Your task to perform on an android device: Show me the alarms in the clock app Image 0: 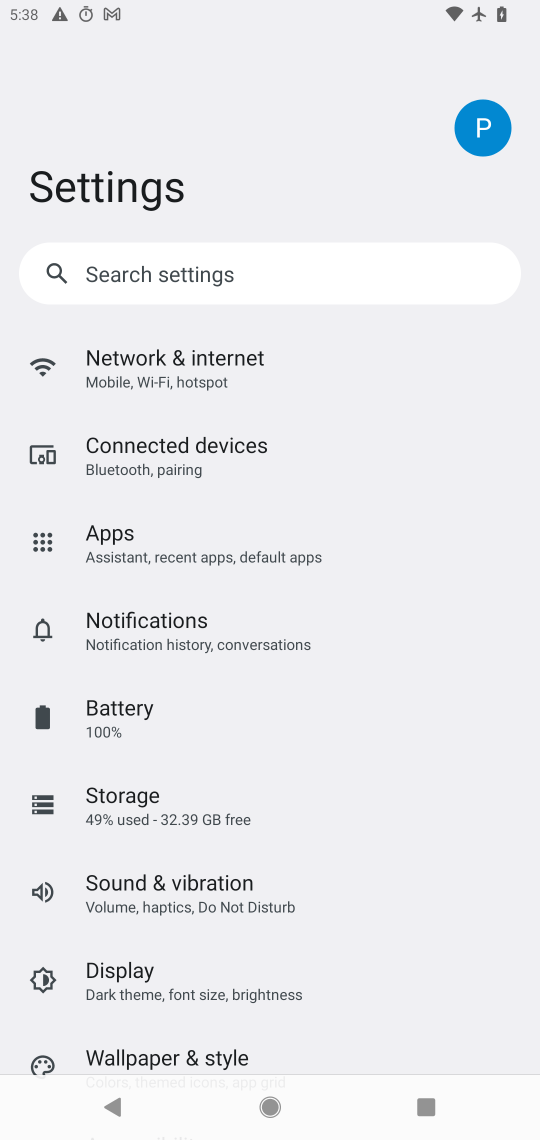
Step 0: press home button
Your task to perform on an android device: Show me the alarms in the clock app Image 1: 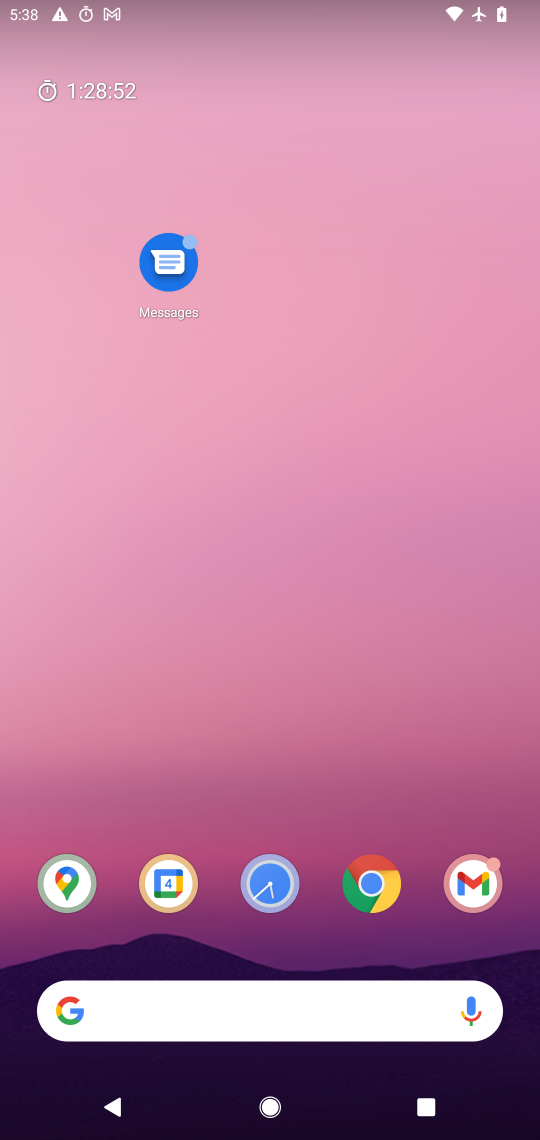
Step 1: drag from (318, 969) to (294, 31)
Your task to perform on an android device: Show me the alarms in the clock app Image 2: 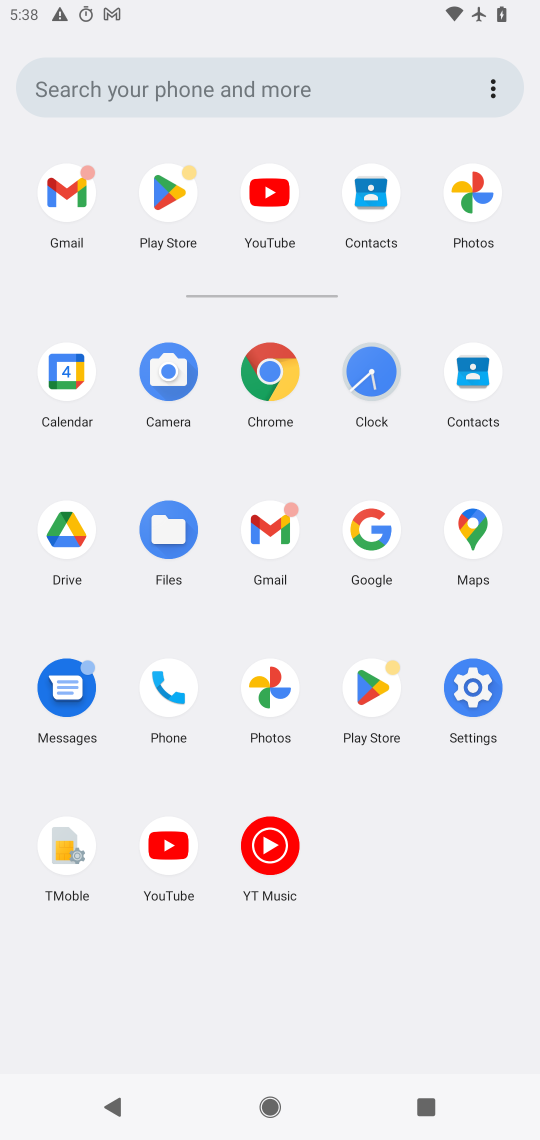
Step 2: click (371, 373)
Your task to perform on an android device: Show me the alarms in the clock app Image 3: 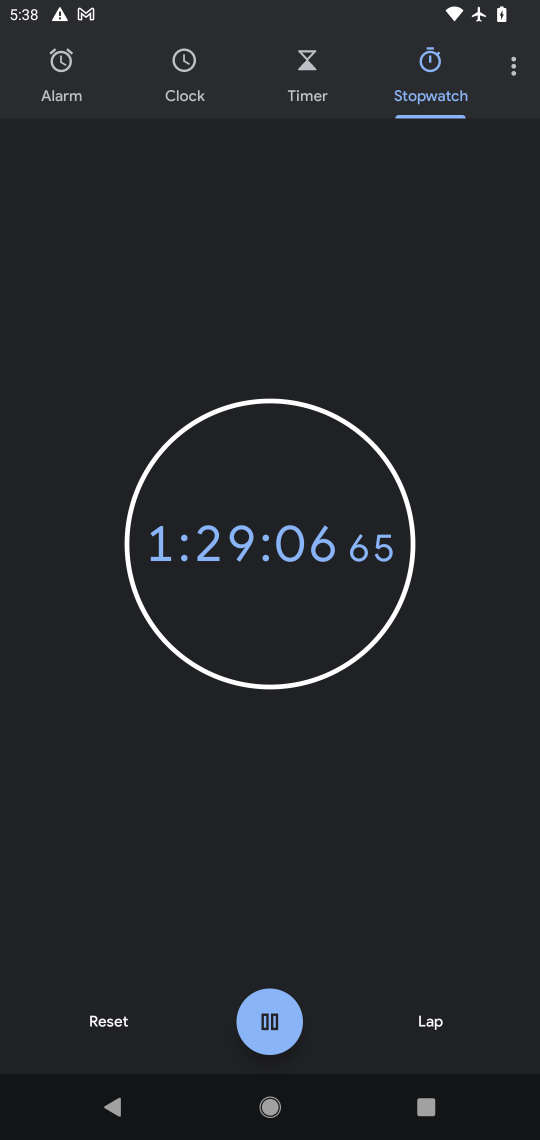
Step 3: click (62, 73)
Your task to perform on an android device: Show me the alarms in the clock app Image 4: 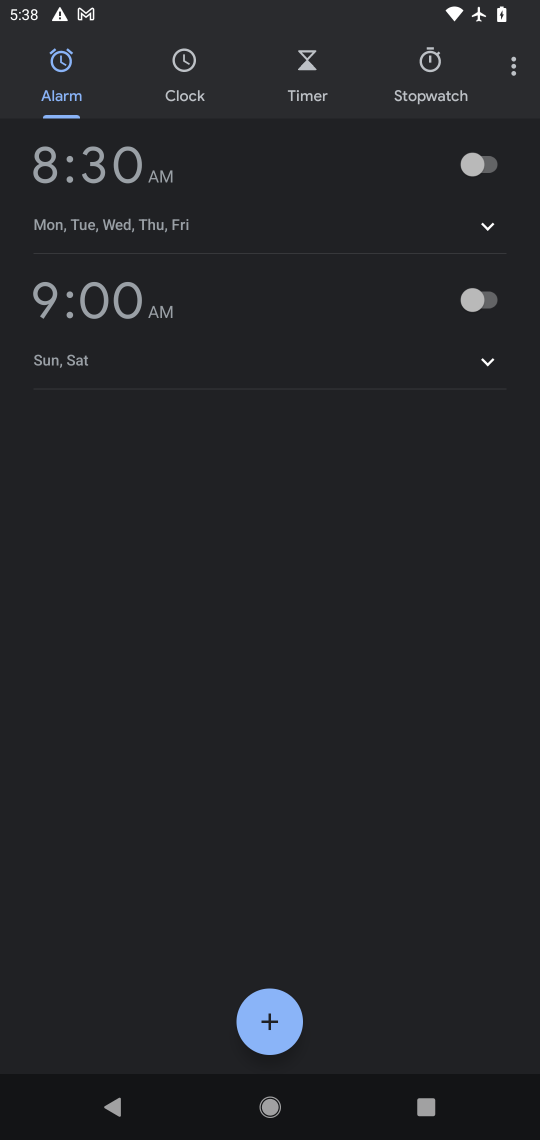
Step 4: task complete